Your task to perform on an android device: Check the news Image 0: 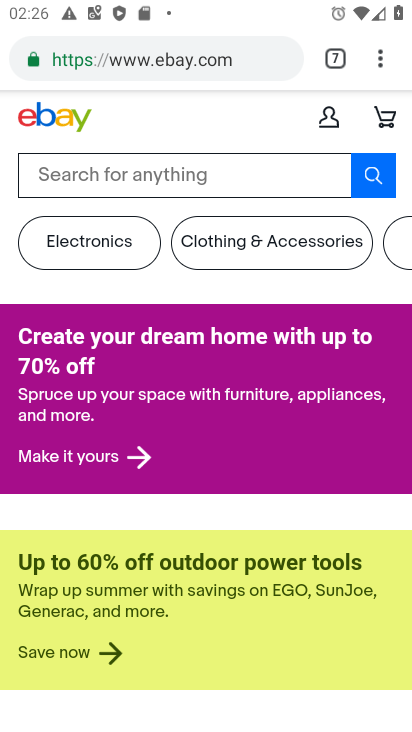
Step 0: press home button
Your task to perform on an android device: Check the news Image 1: 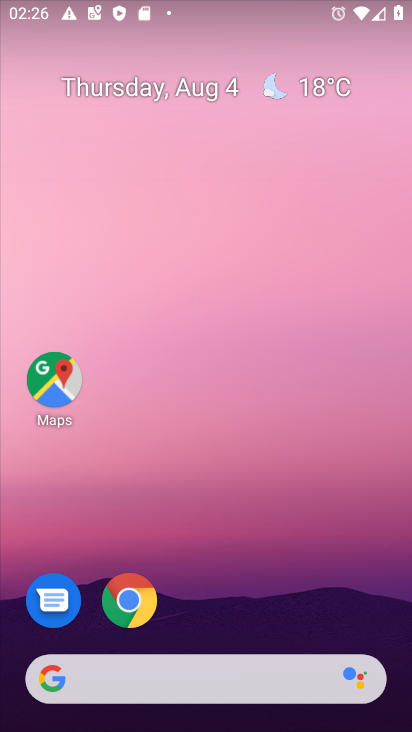
Step 1: click (124, 679)
Your task to perform on an android device: Check the news Image 2: 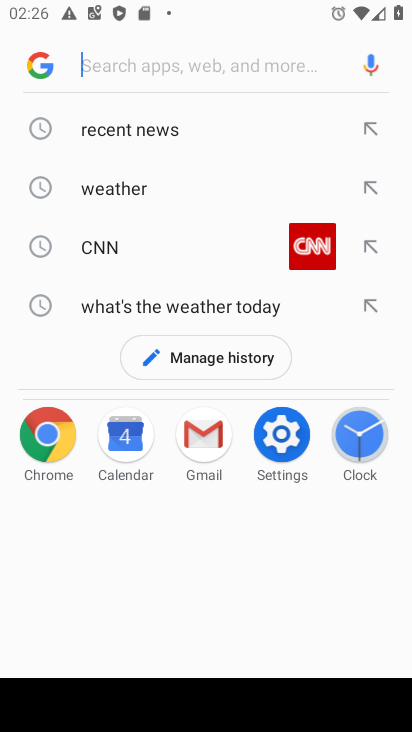
Step 2: click (129, 126)
Your task to perform on an android device: Check the news Image 3: 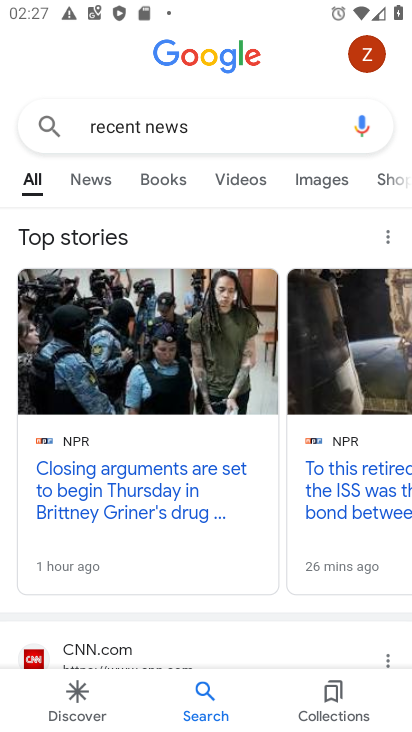
Step 3: click (101, 180)
Your task to perform on an android device: Check the news Image 4: 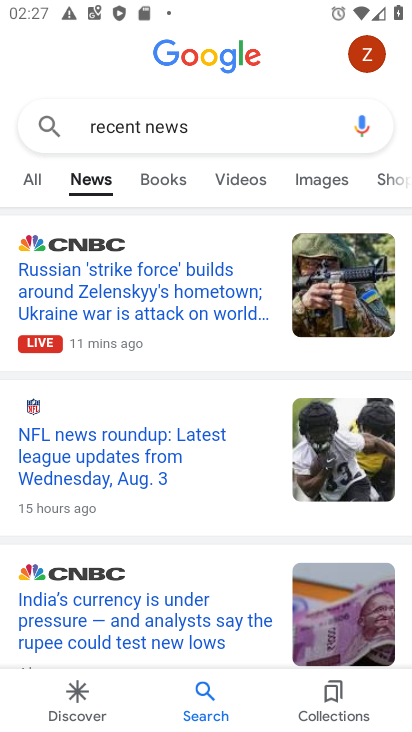
Step 4: task complete